Your task to perform on an android device: open sync settings in chrome Image 0: 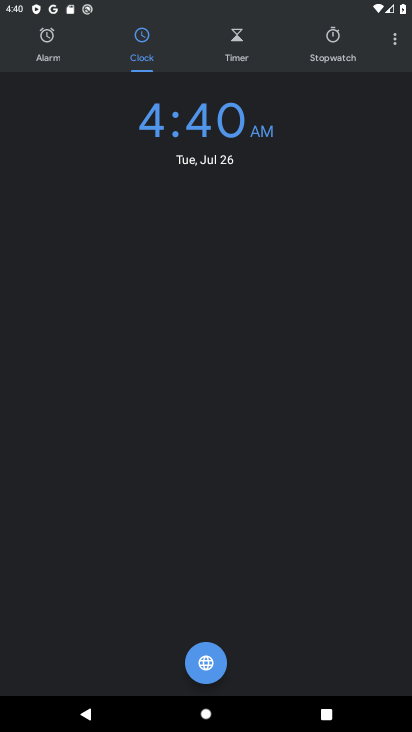
Step 0: press home button
Your task to perform on an android device: open sync settings in chrome Image 1: 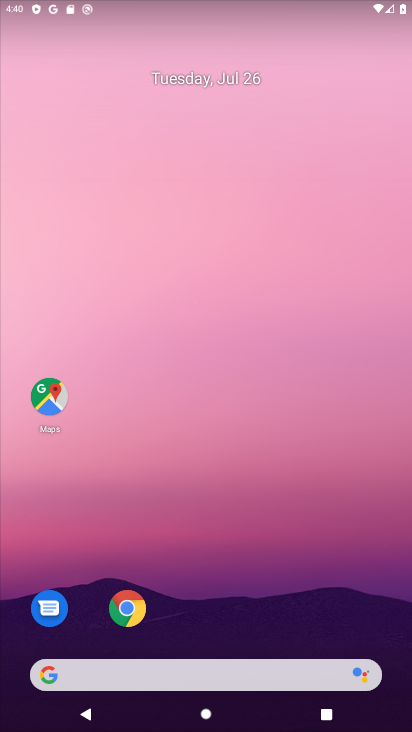
Step 1: click (128, 605)
Your task to perform on an android device: open sync settings in chrome Image 2: 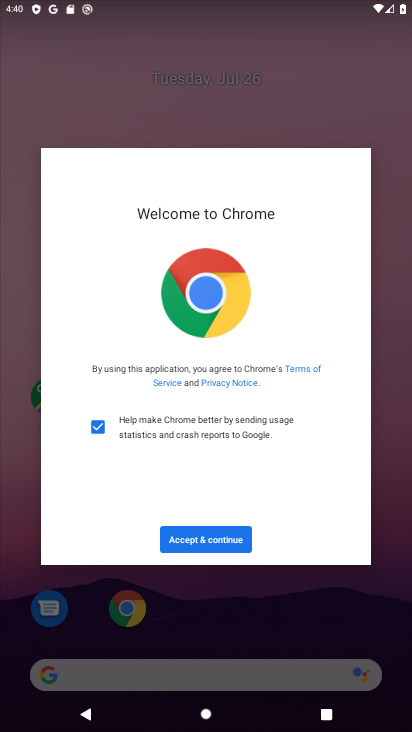
Step 2: click (215, 540)
Your task to perform on an android device: open sync settings in chrome Image 3: 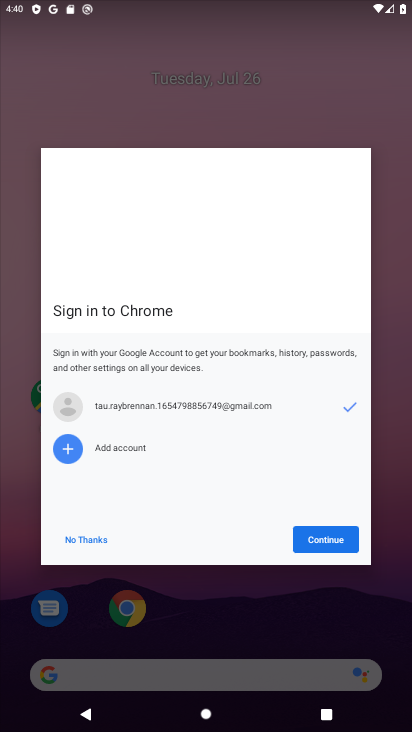
Step 3: click (305, 544)
Your task to perform on an android device: open sync settings in chrome Image 4: 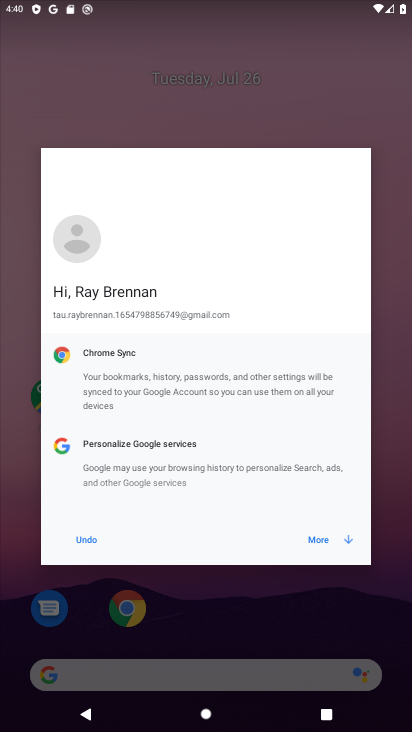
Step 4: click (305, 541)
Your task to perform on an android device: open sync settings in chrome Image 5: 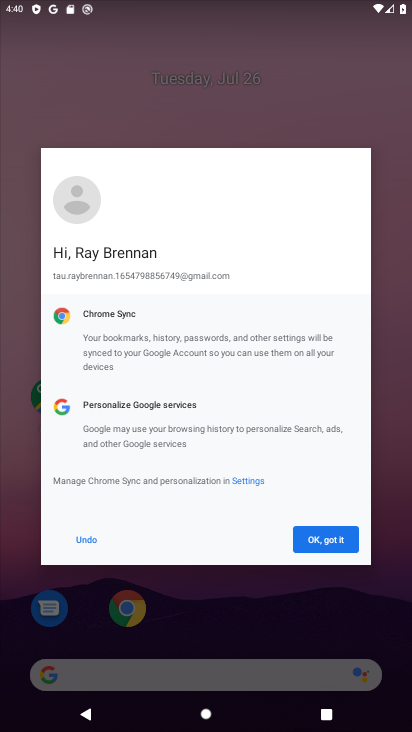
Step 5: click (305, 541)
Your task to perform on an android device: open sync settings in chrome Image 6: 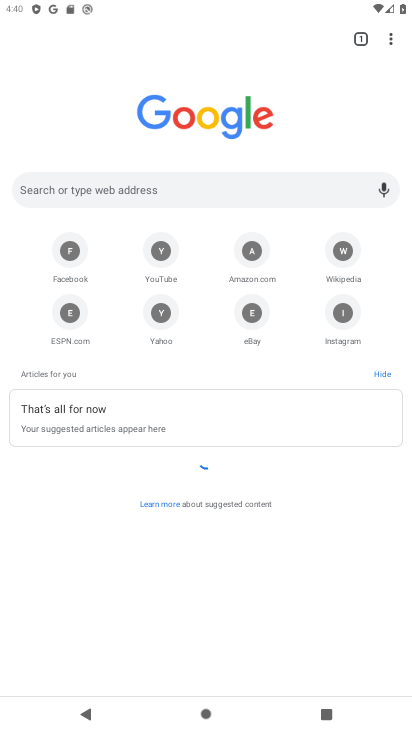
Step 6: click (389, 49)
Your task to perform on an android device: open sync settings in chrome Image 7: 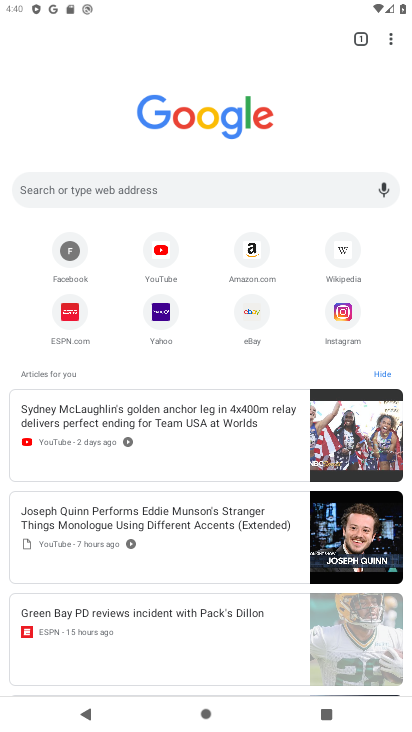
Step 7: click (393, 38)
Your task to perform on an android device: open sync settings in chrome Image 8: 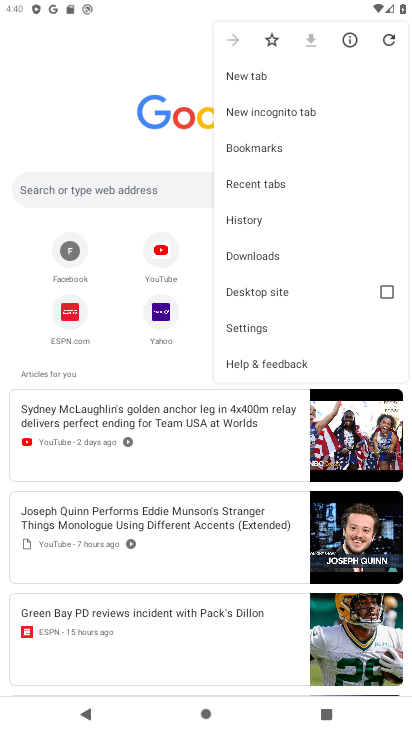
Step 8: click (254, 327)
Your task to perform on an android device: open sync settings in chrome Image 9: 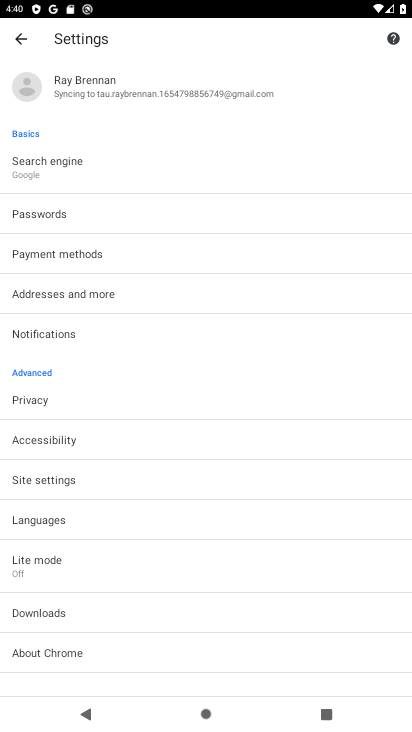
Step 9: click (104, 89)
Your task to perform on an android device: open sync settings in chrome Image 10: 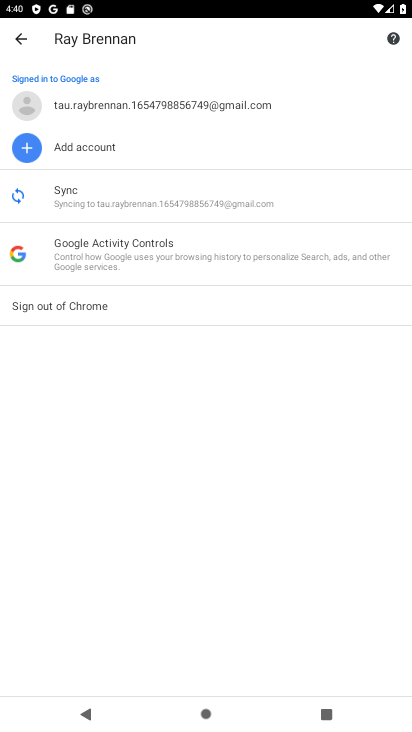
Step 10: click (90, 210)
Your task to perform on an android device: open sync settings in chrome Image 11: 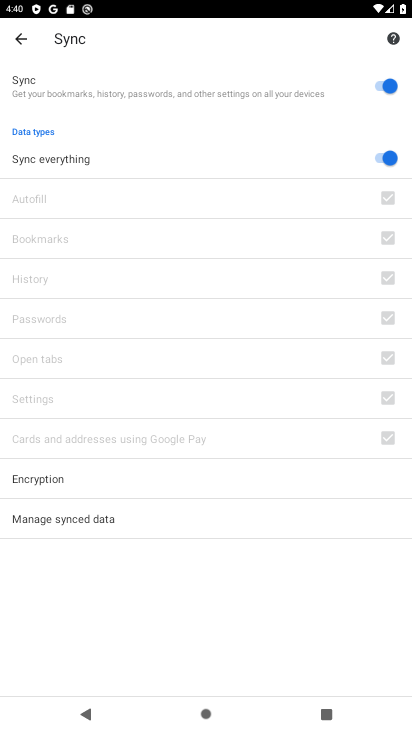
Step 11: task complete